Your task to perform on an android device: all mails in gmail Image 0: 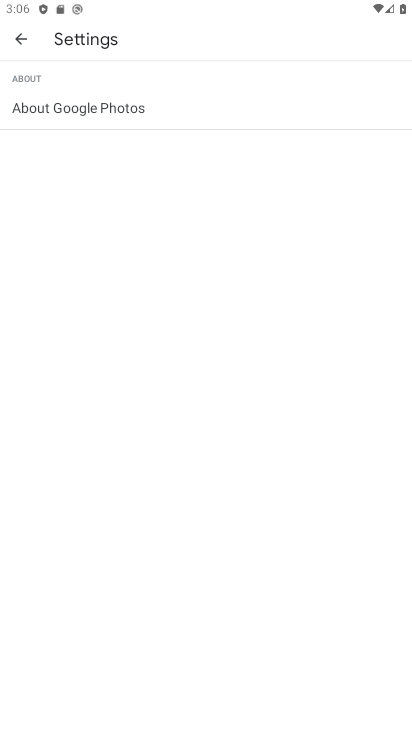
Step 0: press home button
Your task to perform on an android device: all mails in gmail Image 1: 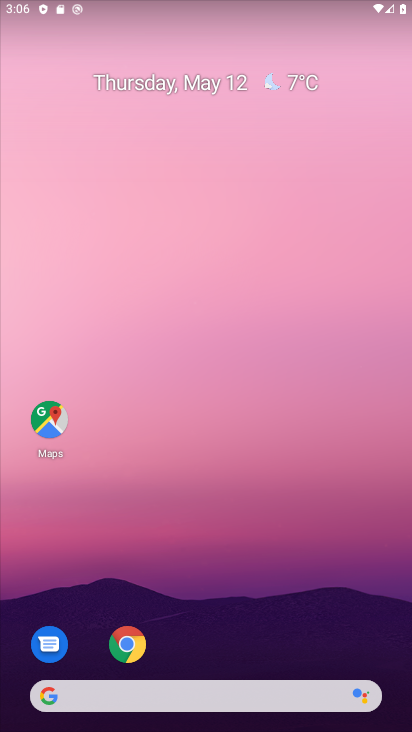
Step 1: drag from (281, 602) to (261, 133)
Your task to perform on an android device: all mails in gmail Image 2: 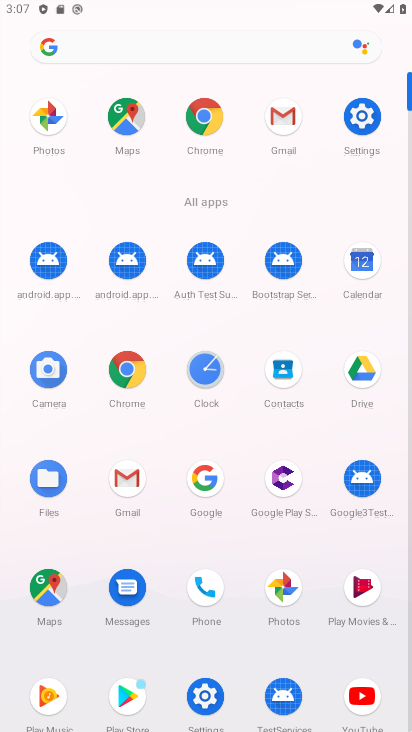
Step 2: click (298, 106)
Your task to perform on an android device: all mails in gmail Image 3: 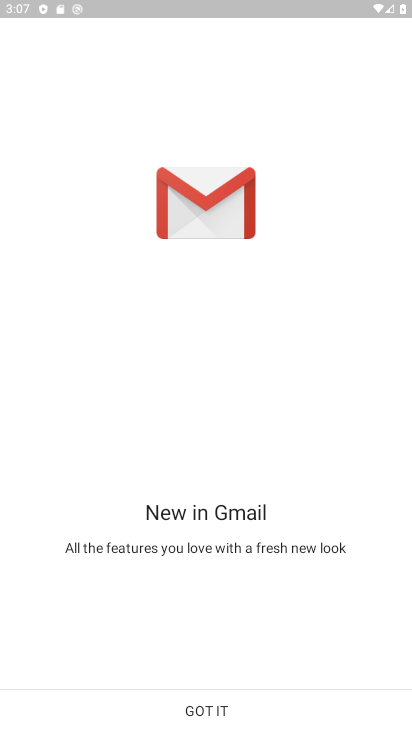
Step 3: click (231, 715)
Your task to perform on an android device: all mails in gmail Image 4: 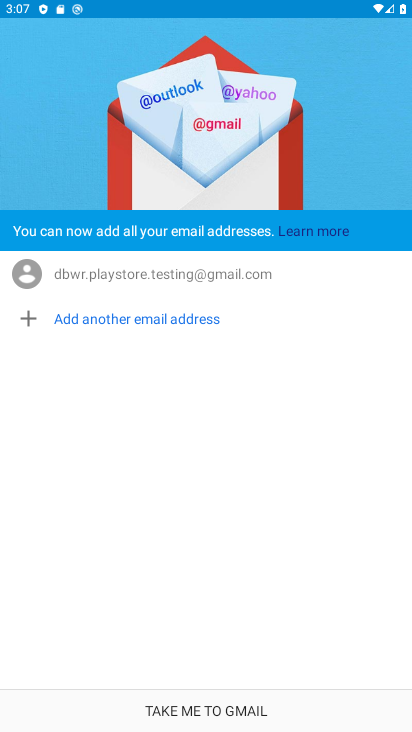
Step 4: click (236, 700)
Your task to perform on an android device: all mails in gmail Image 5: 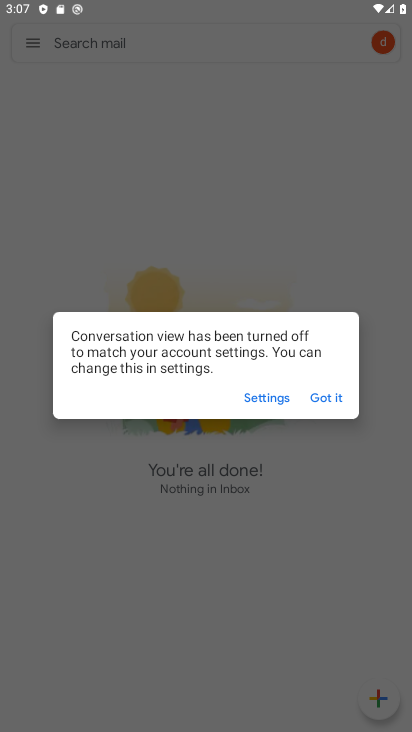
Step 5: click (319, 396)
Your task to perform on an android device: all mails in gmail Image 6: 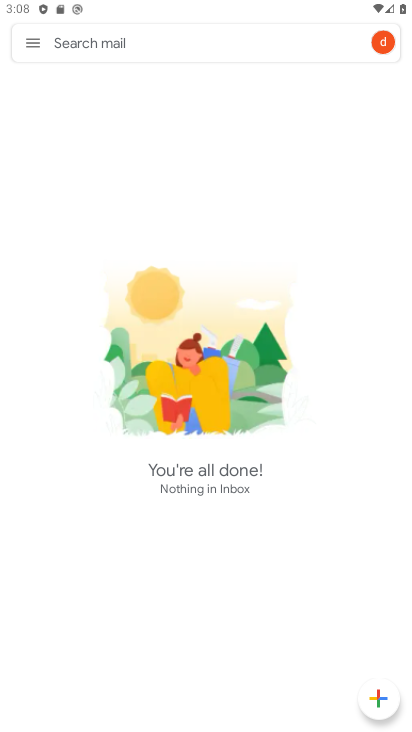
Step 6: click (32, 45)
Your task to perform on an android device: all mails in gmail Image 7: 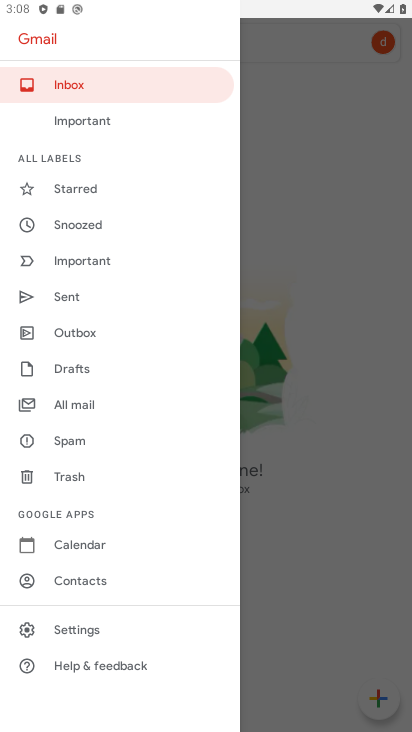
Step 7: click (86, 406)
Your task to perform on an android device: all mails in gmail Image 8: 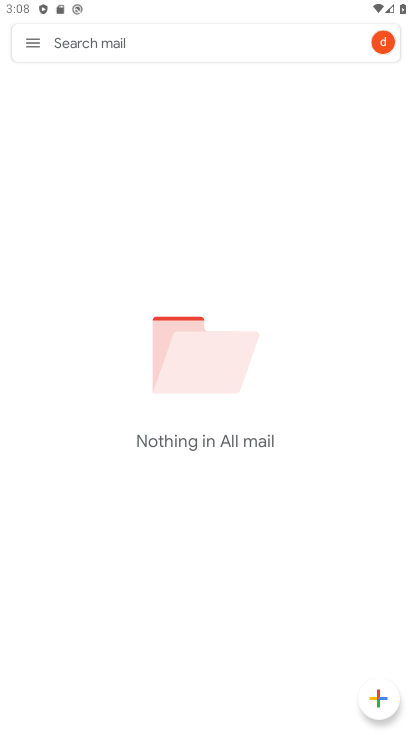
Step 8: task complete